Your task to perform on an android device: Go to sound settings Image 0: 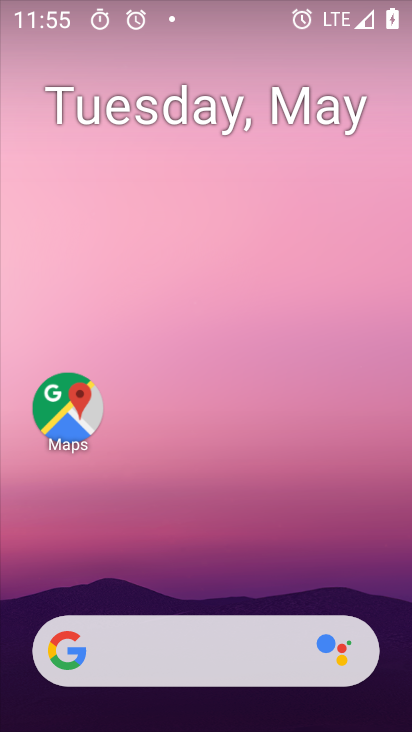
Step 0: drag from (282, 628) to (276, 104)
Your task to perform on an android device: Go to sound settings Image 1: 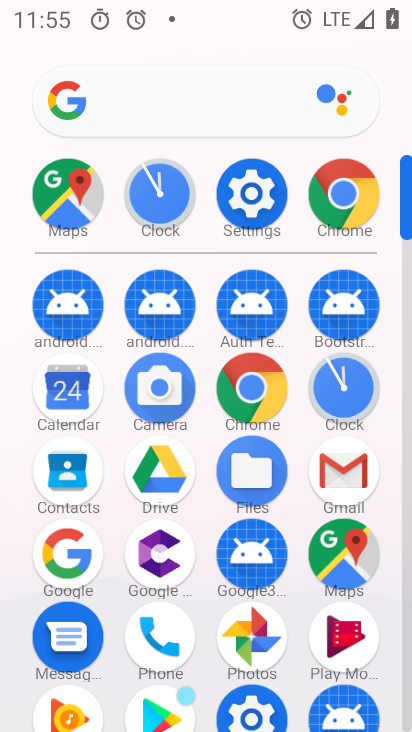
Step 1: click (232, 200)
Your task to perform on an android device: Go to sound settings Image 2: 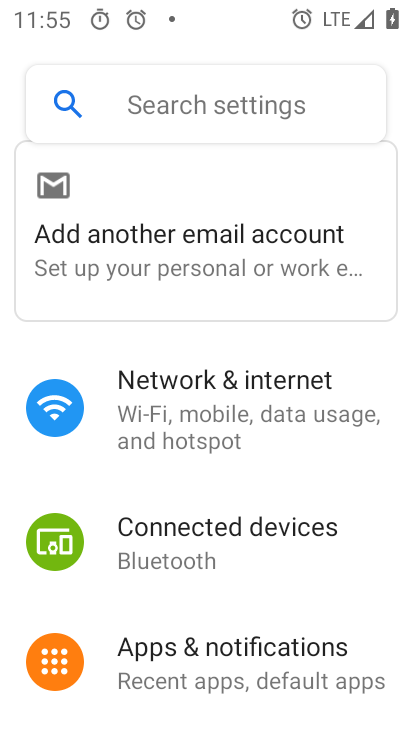
Step 2: drag from (208, 608) to (236, 40)
Your task to perform on an android device: Go to sound settings Image 3: 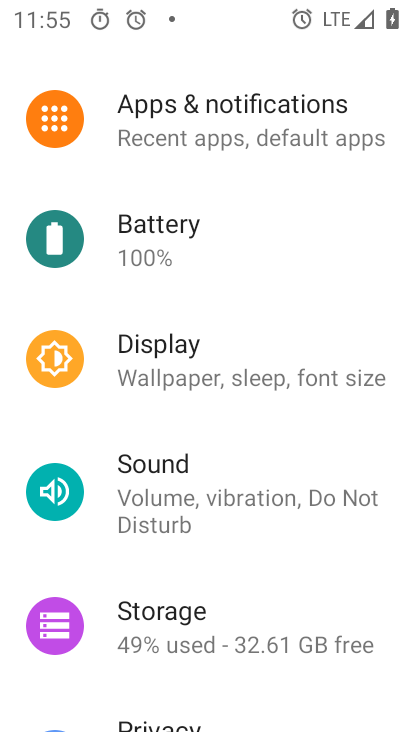
Step 3: click (221, 510)
Your task to perform on an android device: Go to sound settings Image 4: 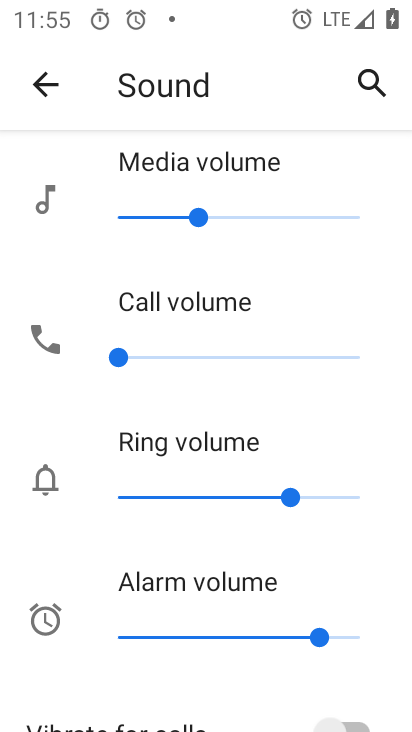
Step 4: task complete